Your task to perform on an android device: open app "Adobe Acrobat Reader: Edit PDF" Image 0: 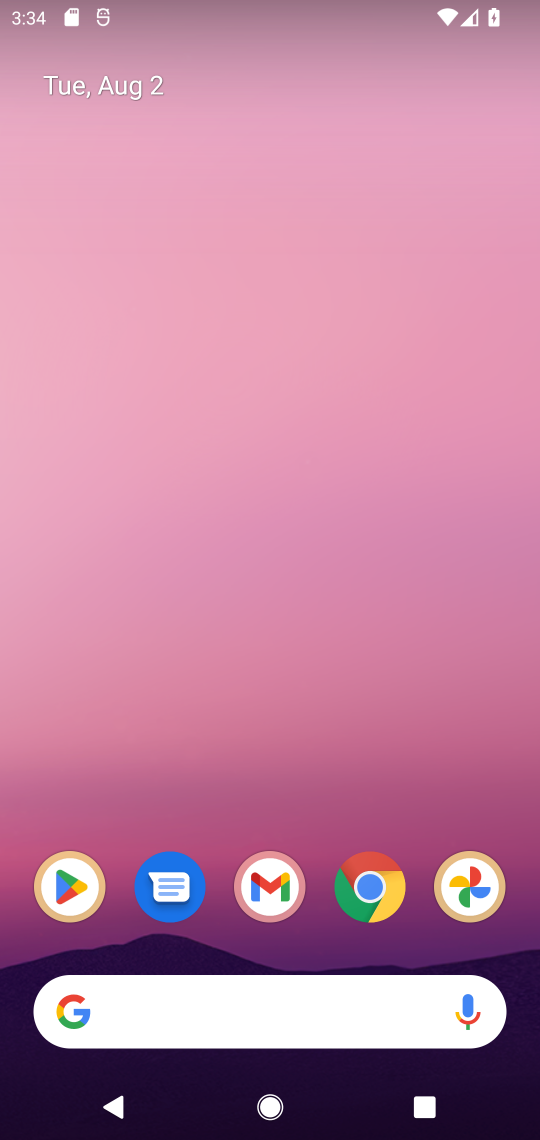
Step 0: click (51, 856)
Your task to perform on an android device: open app "Adobe Acrobat Reader: Edit PDF" Image 1: 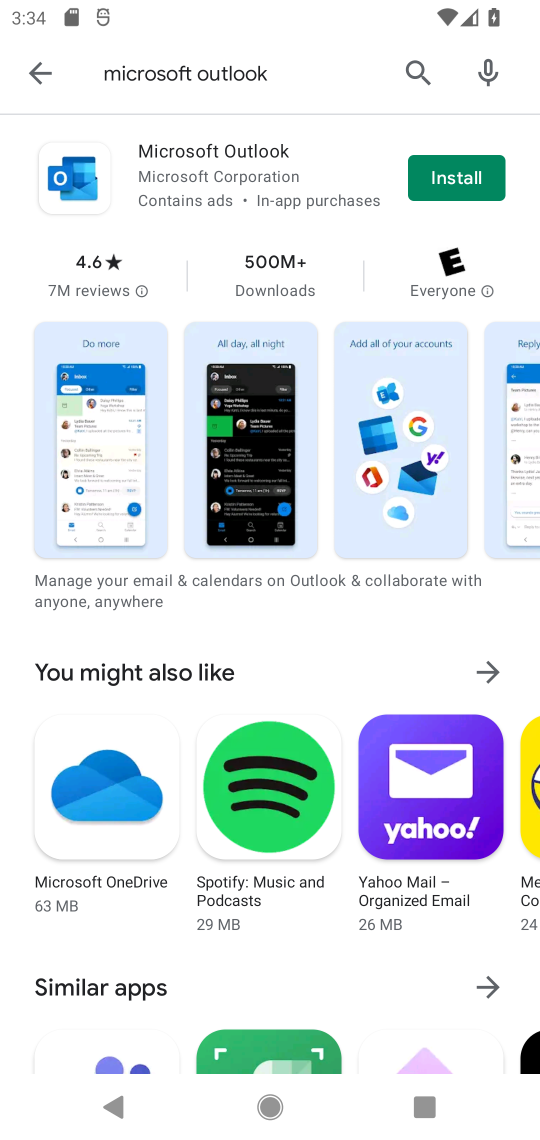
Step 1: click (49, 73)
Your task to perform on an android device: open app "Adobe Acrobat Reader: Edit PDF" Image 2: 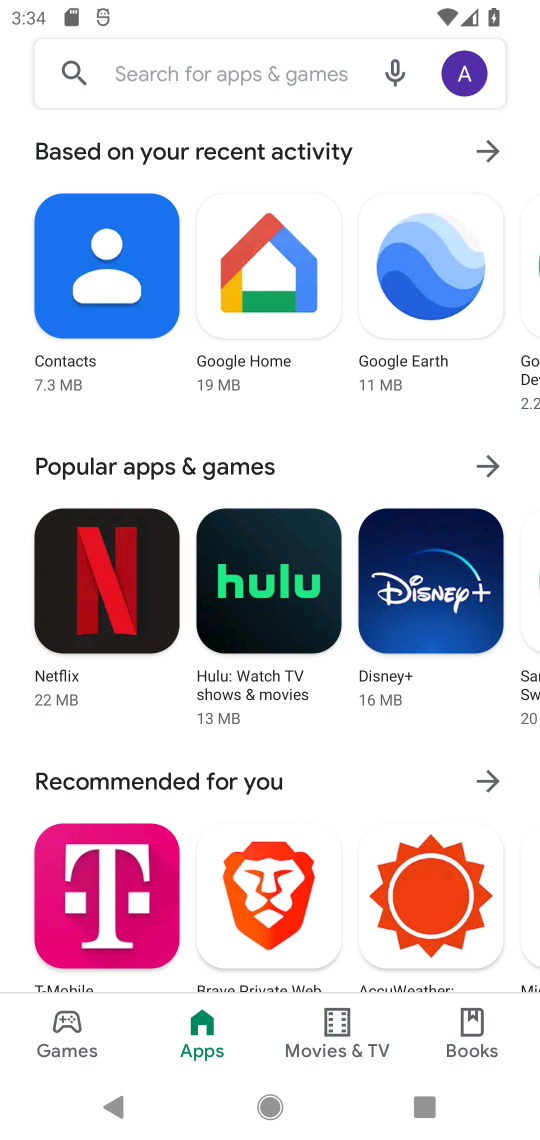
Step 2: click (151, 47)
Your task to perform on an android device: open app "Adobe Acrobat Reader: Edit PDF" Image 3: 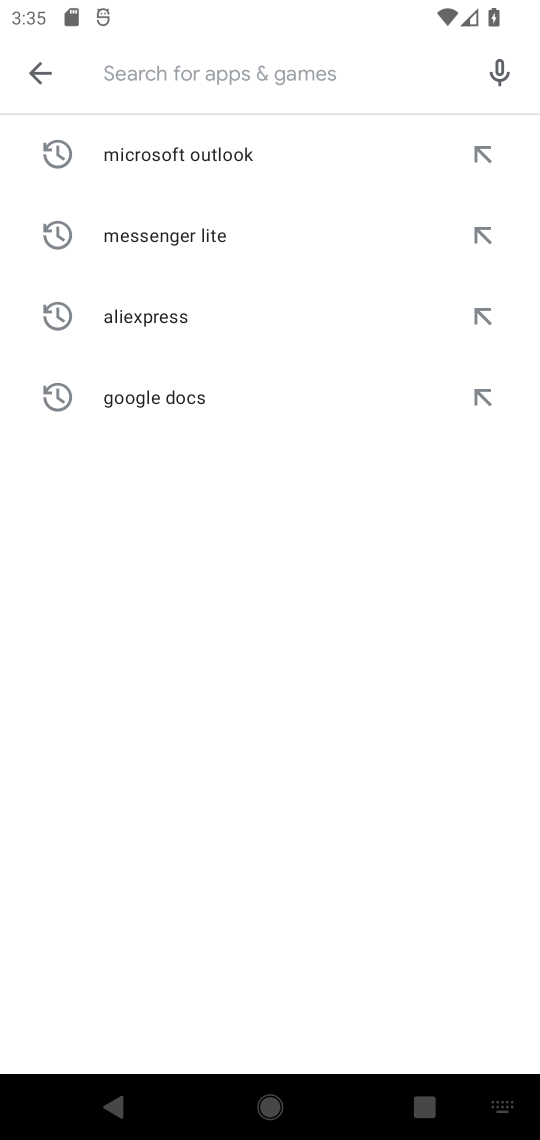
Step 3: type "Adobe Acrobat Reader"
Your task to perform on an android device: open app "Adobe Acrobat Reader: Edit PDF" Image 4: 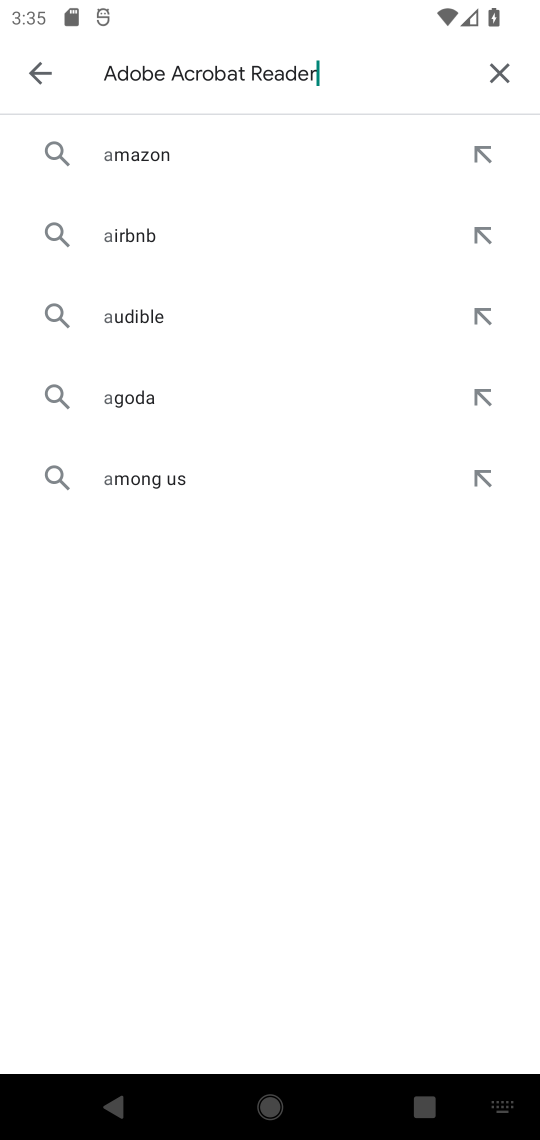
Step 4: type ""
Your task to perform on an android device: open app "Adobe Acrobat Reader: Edit PDF" Image 5: 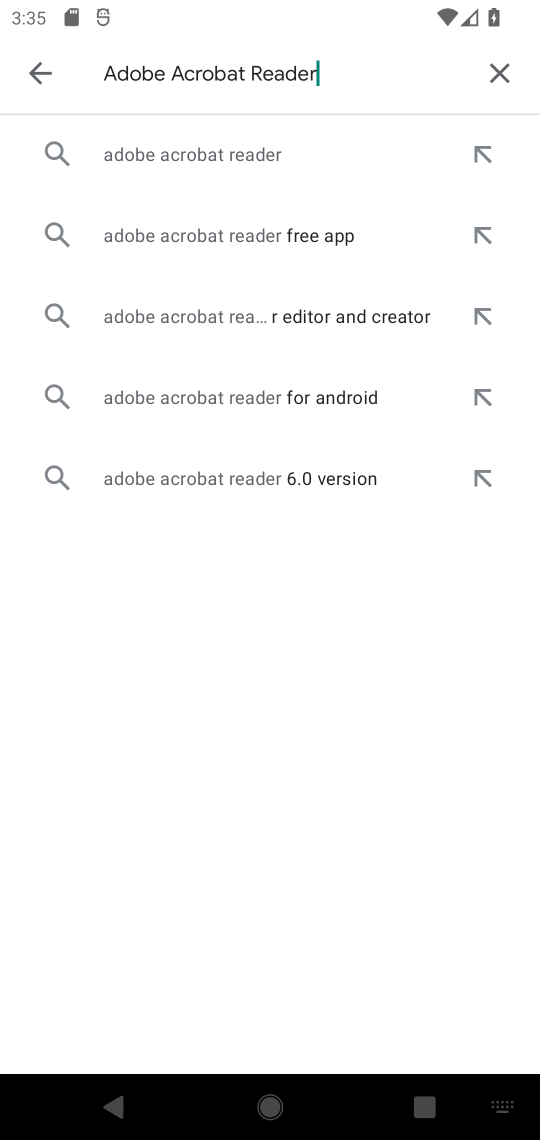
Step 5: click (217, 155)
Your task to perform on an android device: open app "Adobe Acrobat Reader: Edit PDF" Image 6: 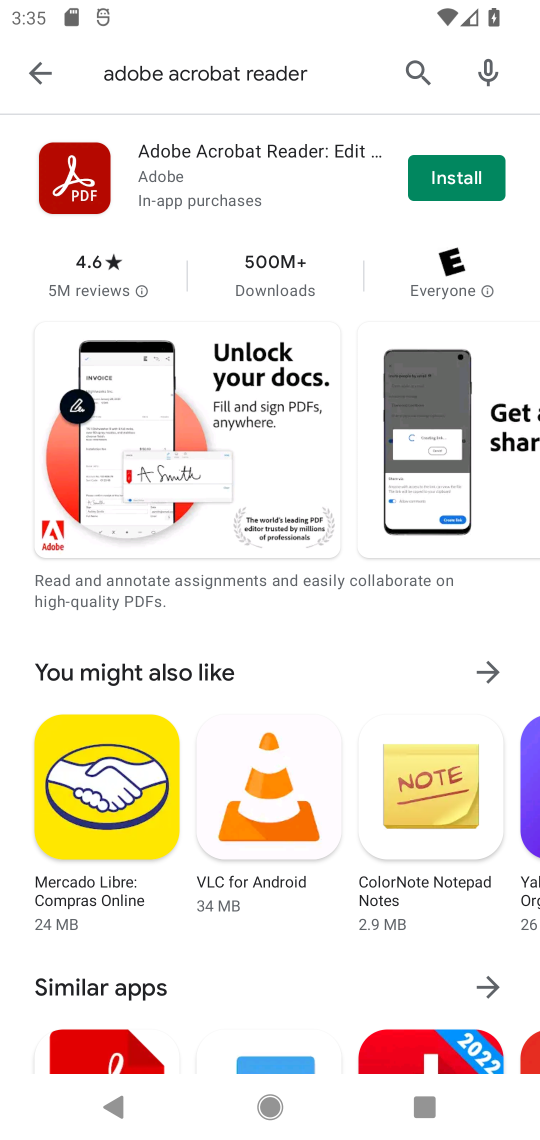
Step 6: click (447, 170)
Your task to perform on an android device: open app "Adobe Acrobat Reader: Edit PDF" Image 7: 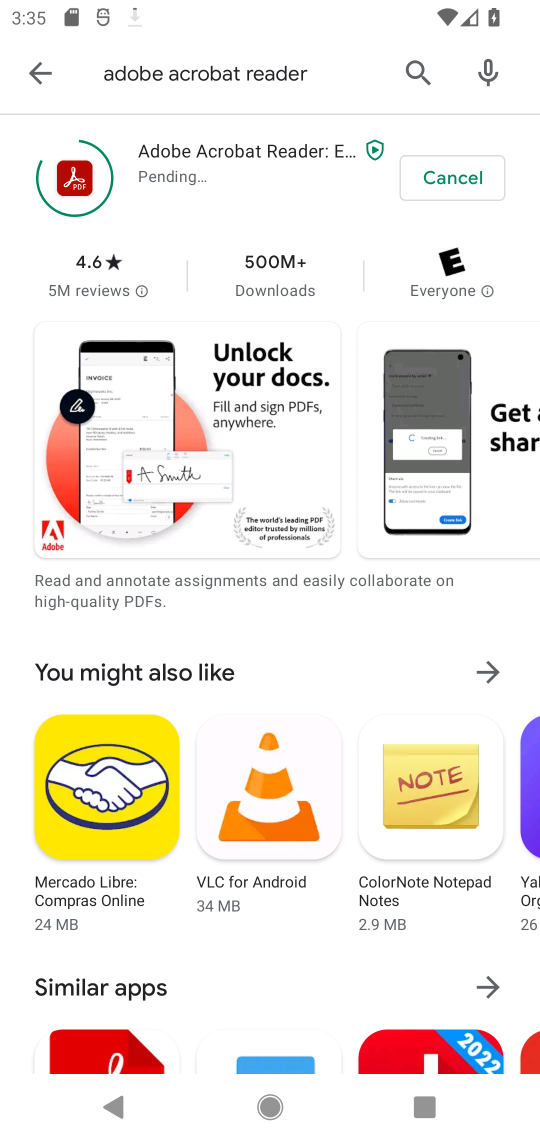
Step 7: click (479, 178)
Your task to perform on an android device: open app "Adobe Acrobat Reader: Edit PDF" Image 8: 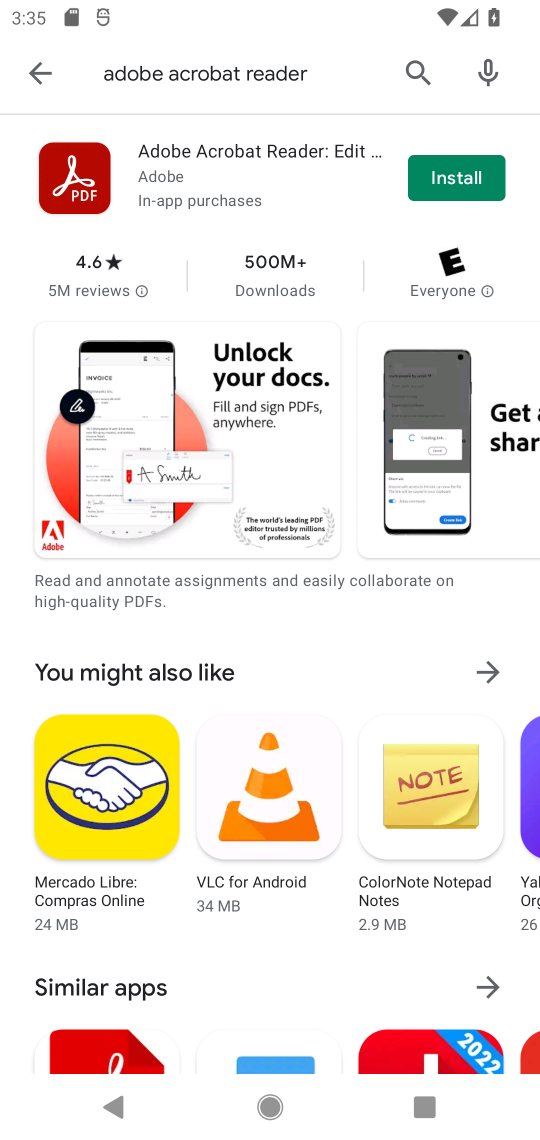
Step 8: task complete